Your task to perform on an android device: visit the assistant section in the google photos Image 0: 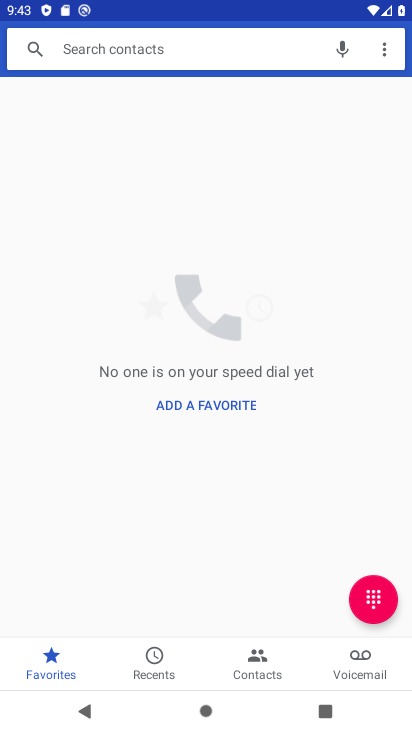
Step 0: press home button
Your task to perform on an android device: visit the assistant section in the google photos Image 1: 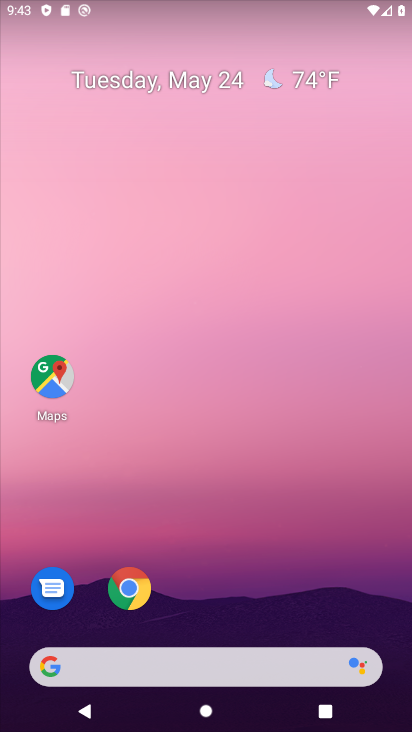
Step 1: drag from (211, 599) to (392, 83)
Your task to perform on an android device: visit the assistant section in the google photos Image 2: 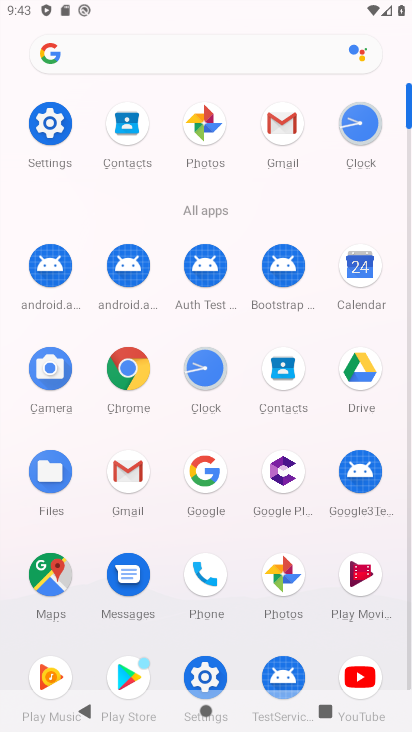
Step 2: click (201, 138)
Your task to perform on an android device: visit the assistant section in the google photos Image 3: 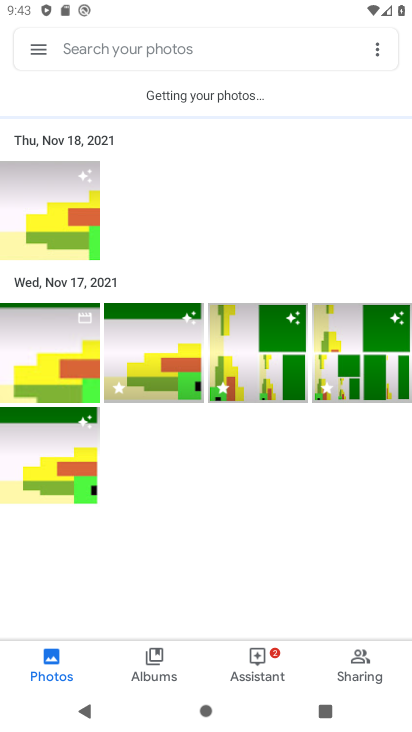
Step 3: click (210, 125)
Your task to perform on an android device: visit the assistant section in the google photos Image 4: 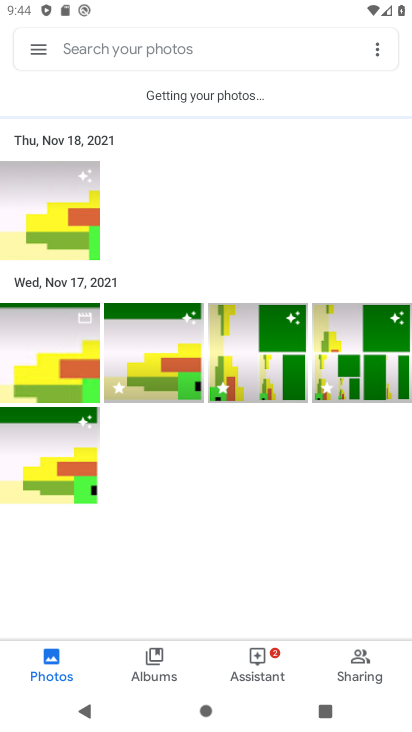
Step 4: click (277, 682)
Your task to perform on an android device: visit the assistant section in the google photos Image 5: 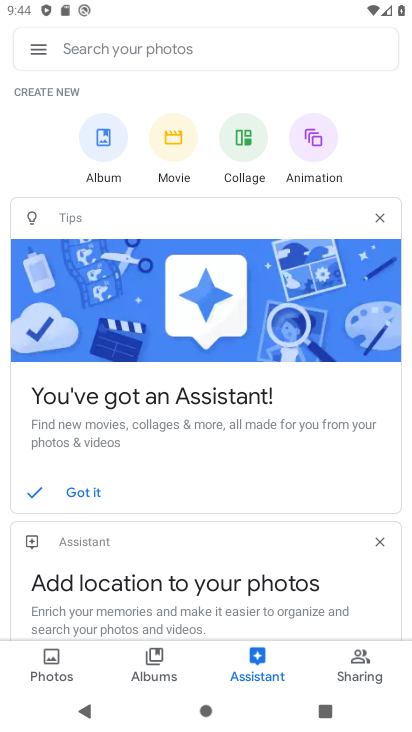
Step 5: task complete